Your task to perform on an android device: change the clock display to show seconds Image 0: 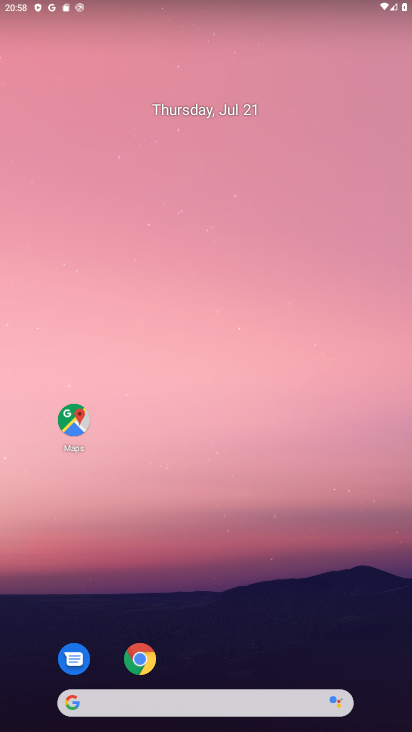
Step 0: press home button
Your task to perform on an android device: change the clock display to show seconds Image 1: 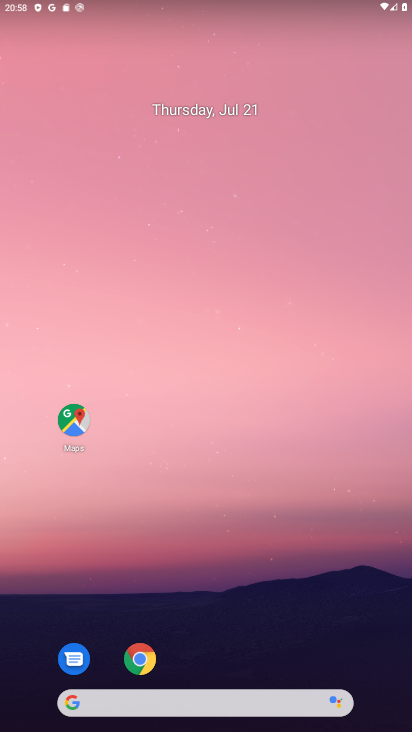
Step 1: drag from (308, 623) to (304, 1)
Your task to perform on an android device: change the clock display to show seconds Image 2: 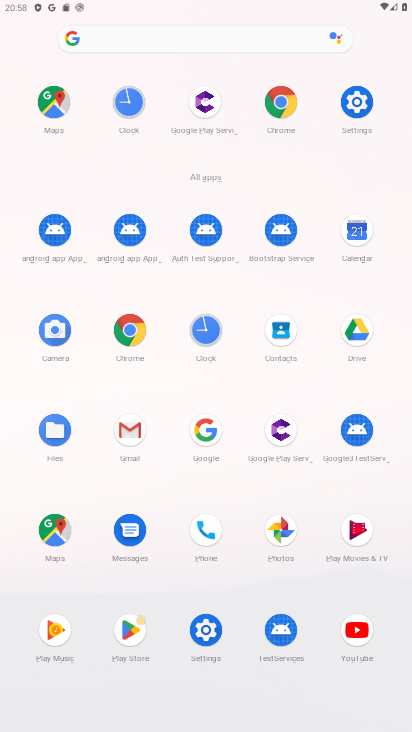
Step 2: click (204, 348)
Your task to perform on an android device: change the clock display to show seconds Image 3: 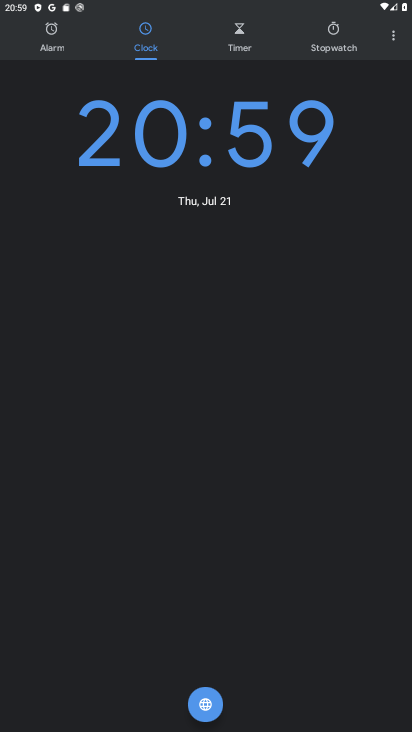
Step 3: click (389, 39)
Your task to perform on an android device: change the clock display to show seconds Image 4: 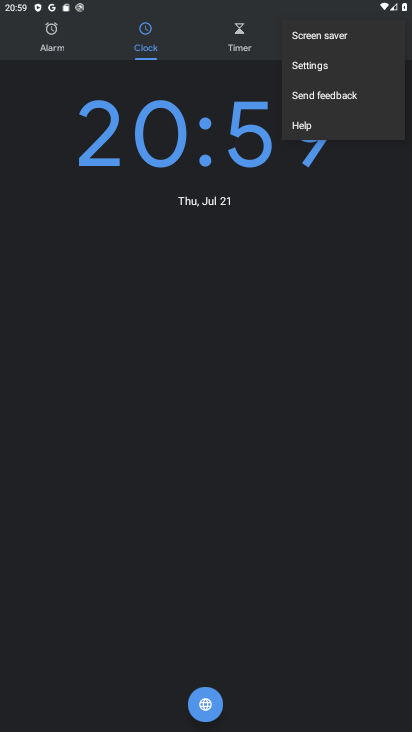
Step 4: click (344, 73)
Your task to perform on an android device: change the clock display to show seconds Image 5: 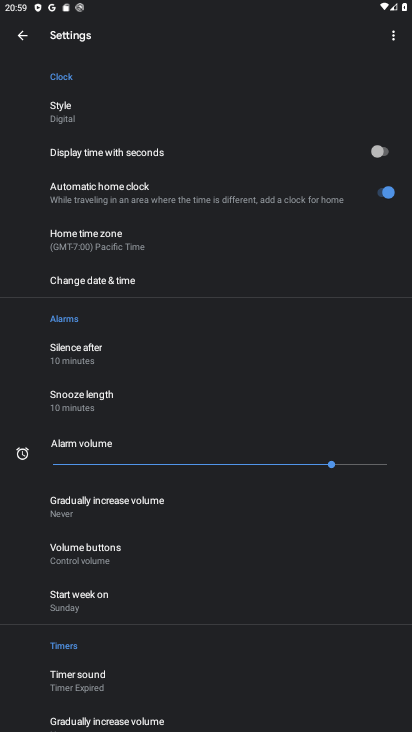
Step 5: click (367, 149)
Your task to perform on an android device: change the clock display to show seconds Image 6: 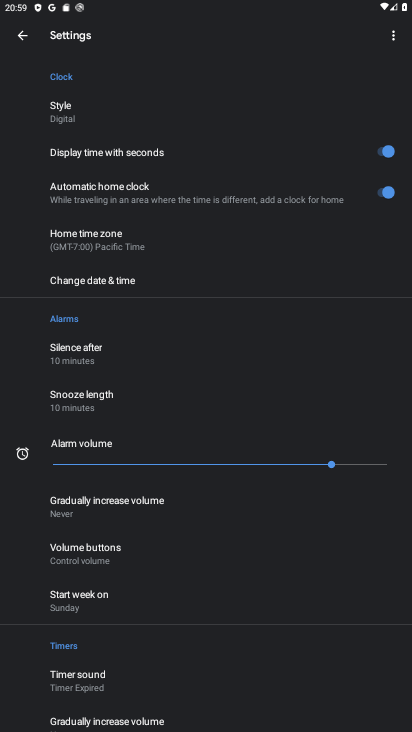
Step 6: task complete